Your task to perform on an android device: delete the emails in spam in the gmail app Image 0: 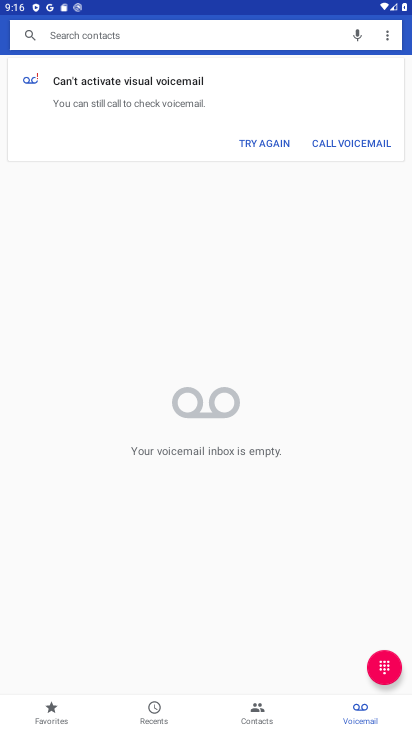
Step 0: press home button
Your task to perform on an android device: delete the emails in spam in the gmail app Image 1: 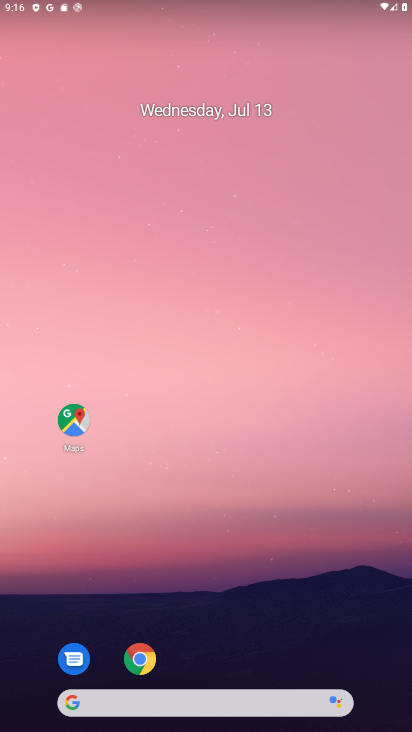
Step 1: drag from (239, 642) to (235, 214)
Your task to perform on an android device: delete the emails in spam in the gmail app Image 2: 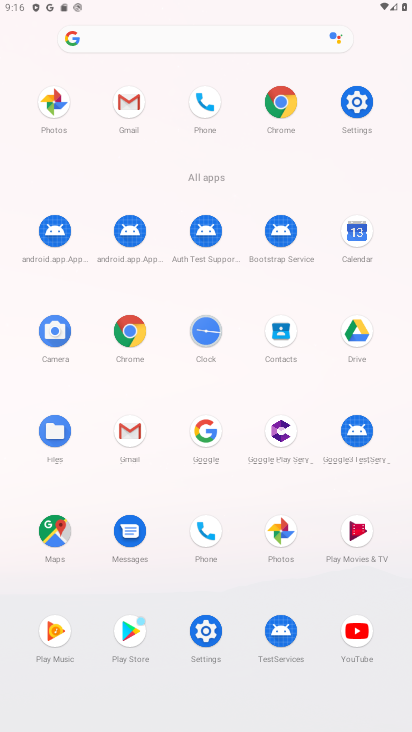
Step 2: click (130, 97)
Your task to perform on an android device: delete the emails in spam in the gmail app Image 3: 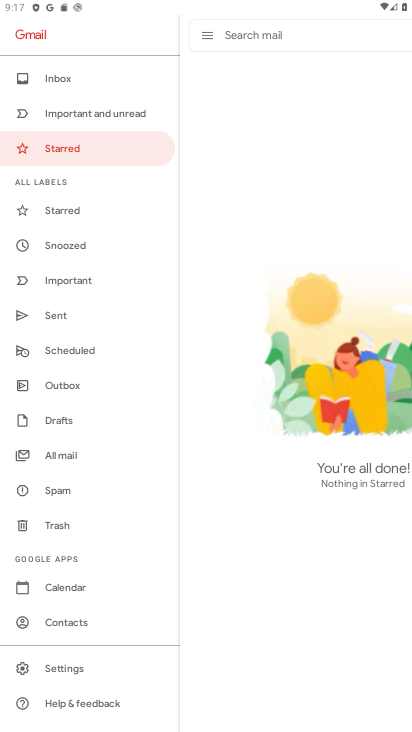
Step 3: click (78, 448)
Your task to perform on an android device: delete the emails in spam in the gmail app Image 4: 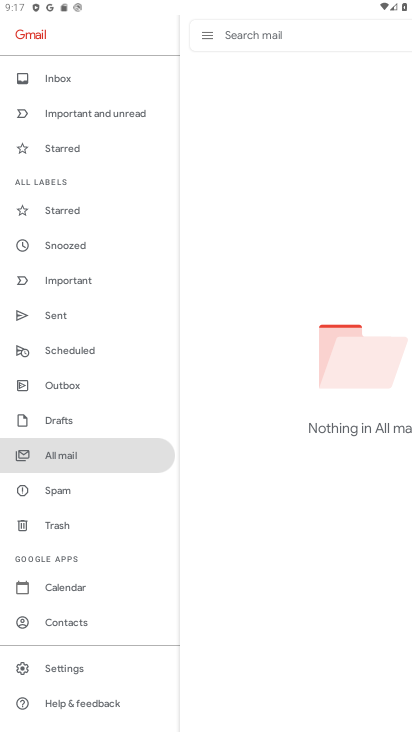
Step 4: task complete